Your task to perform on an android device: Search for macbook on amazon.com, select the first entry, add it to the cart, then select checkout. Image 0: 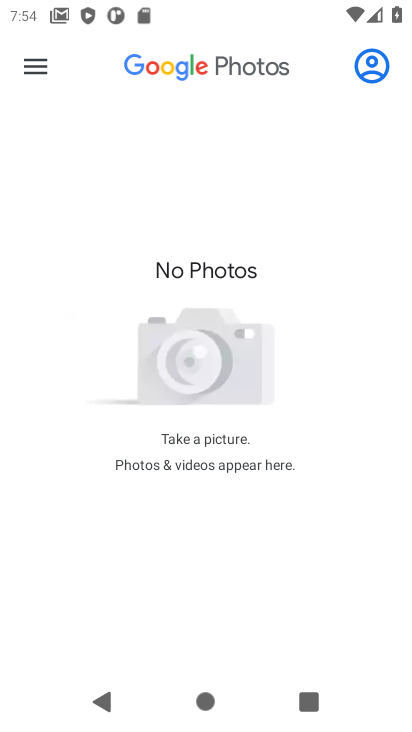
Step 0: press home button
Your task to perform on an android device: Search for macbook on amazon.com, select the first entry, add it to the cart, then select checkout. Image 1: 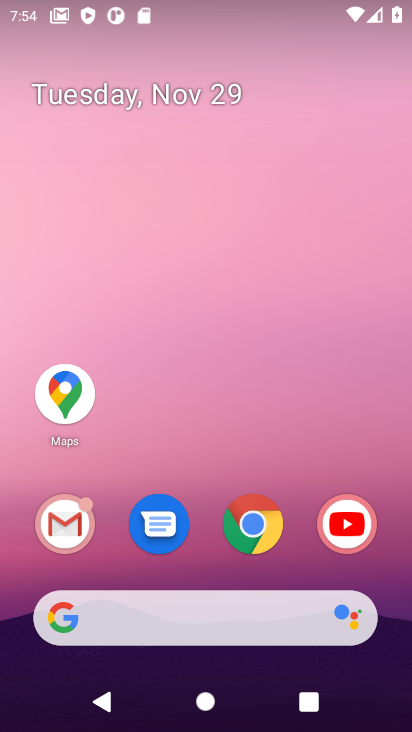
Step 1: click (256, 534)
Your task to perform on an android device: Search for macbook on amazon.com, select the first entry, add it to the cart, then select checkout. Image 2: 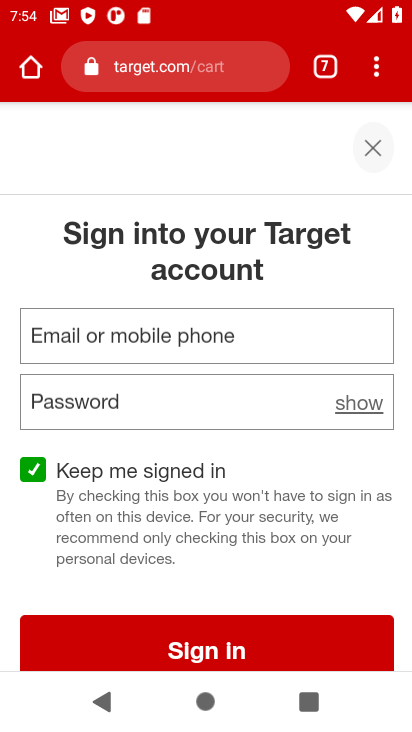
Step 2: click (184, 66)
Your task to perform on an android device: Search for macbook on amazon.com, select the first entry, add it to the cart, then select checkout. Image 3: 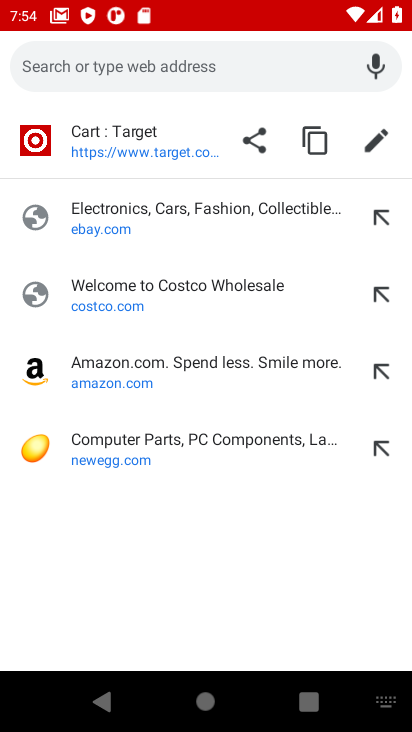
Step 3: click (92, 380)
Your task to perform on an android device: Search for macbook on amazon.com, select the first entry, add it to the cart, then select checkout. Image 4: 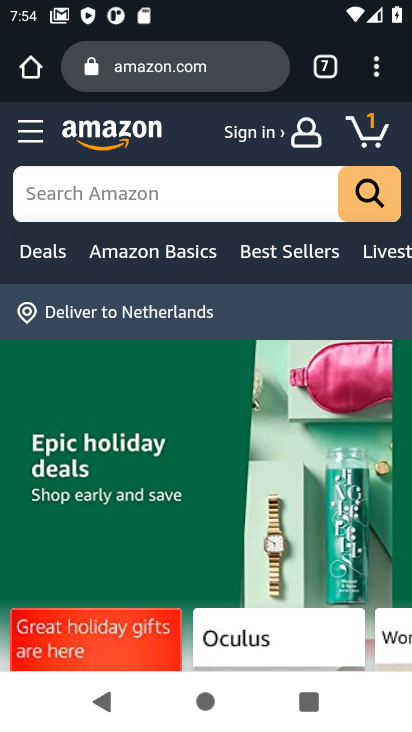
Step 4: click (152, 202)
Your task to perform on an android device: Search for macbook on amazon.com, select the first entry, add it to the cart, then select checkout. Image 5: 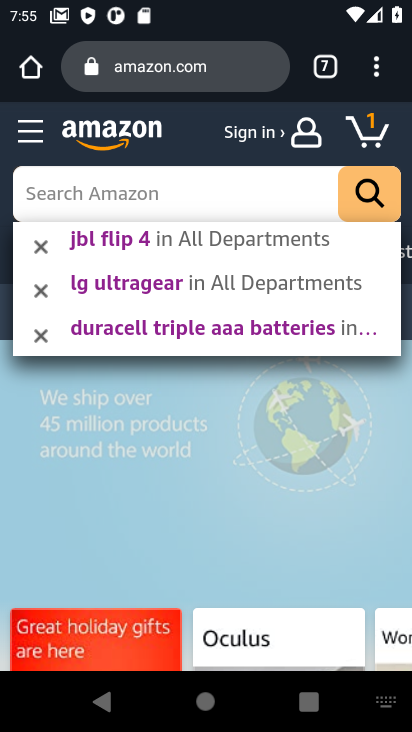
Step 5: type "macbook"
Your task to perform on an android device: Search for macbook on amazon.com, select the first entry, add it to the cart, then select checkout. Image 6: 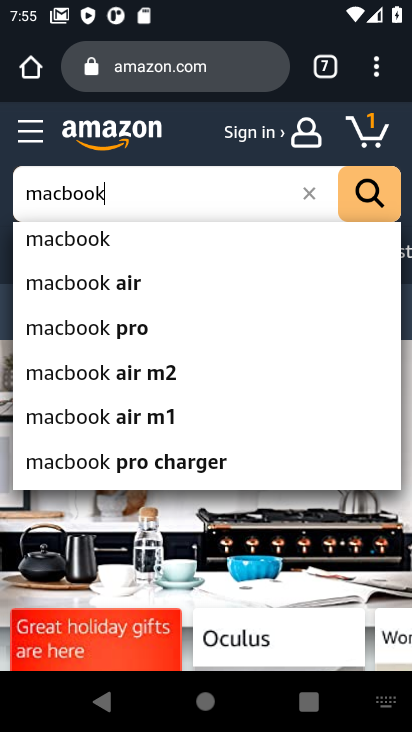
Step 6: click (104, 243)
Your task to perform on an android device: Search for macbook on amazon.com, select the first entry, add it to the cart, then select checkout. Image 7: 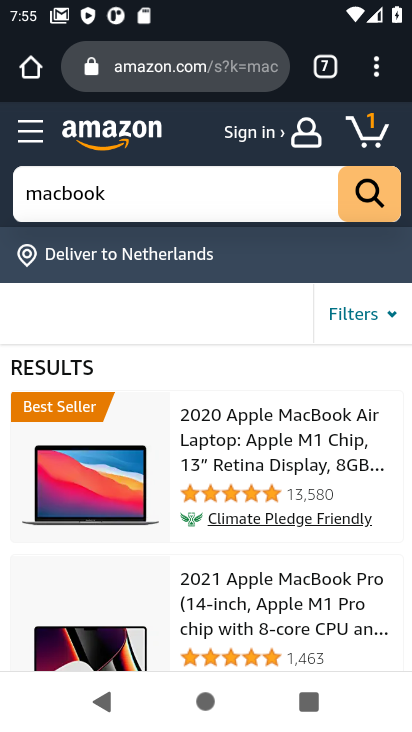
Step 7: click (218, 462)
Your task to perform on an android device: Search for macbook on amazon.com, select the first entry, add it to the cart, then select checkout. Image 8: 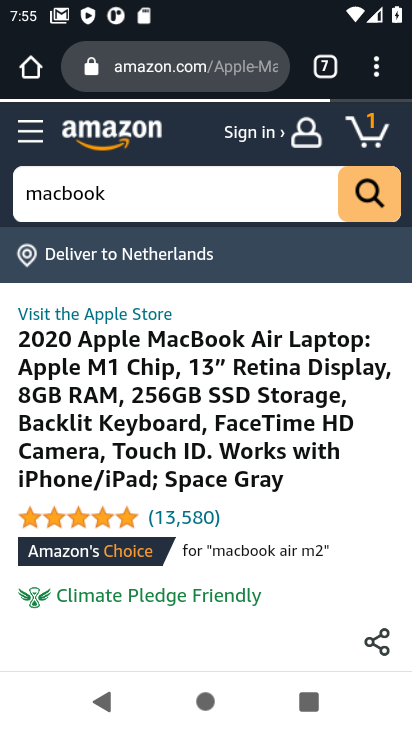
Step 8: task complete